Your task to perform on an android device: turn on improve location accuracy Image 0: 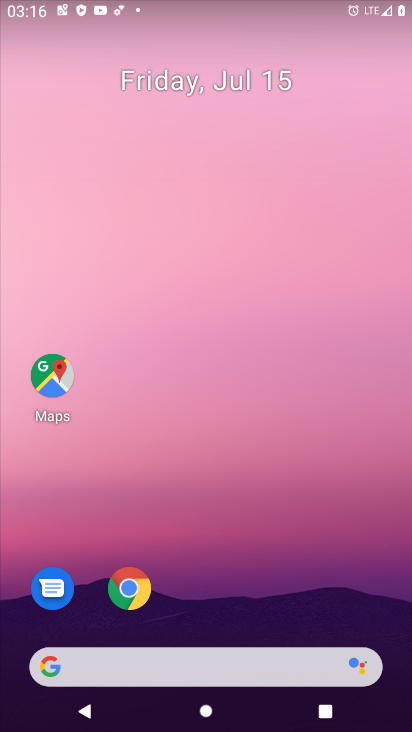
Step 0: drag from (197, 667) to (127, 174)
Your task to perform on an android device: turn on improve location accuracy Image 1: 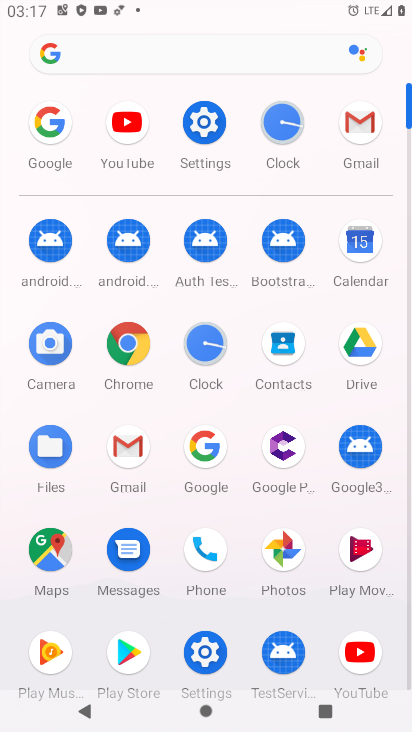
Step 1: click (205, 121)
Your task to perform on an android device: turn on improve location accuracy Image 2: 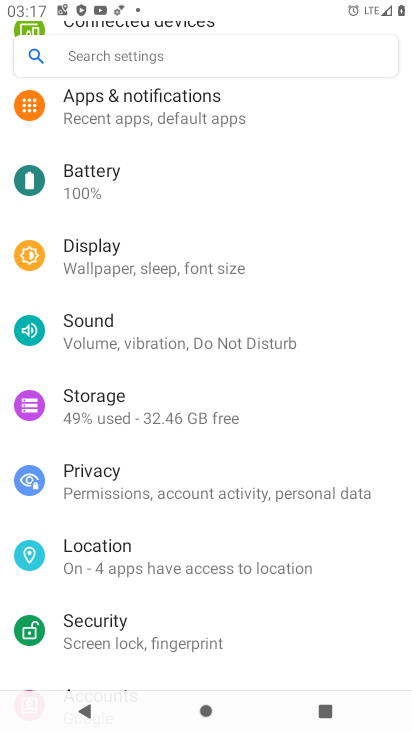
Step 2: click (108, 559)
Your task to perform on an android device: turn on improve location accuracy Image 3: 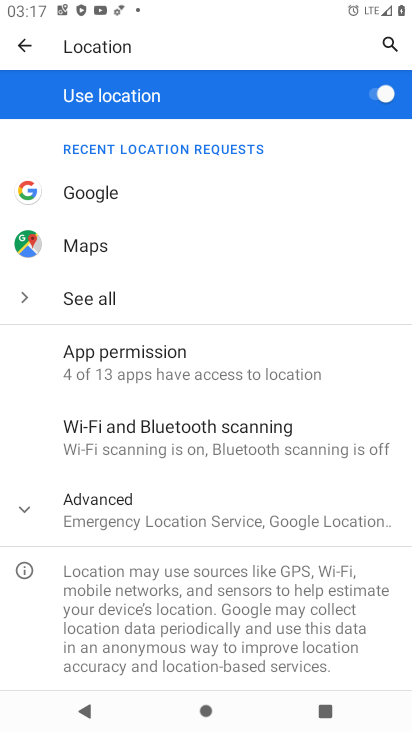
Step 3: click (138, 517)
Your task to perform on an android device: turn on improve location accuracy Image 4: 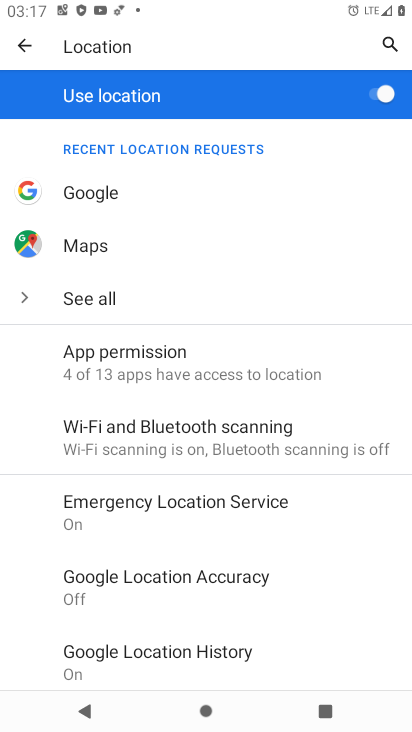
Step 4: click (129, 576)
Your task to perform on an android device: turn on improve location accuracy Image 5: 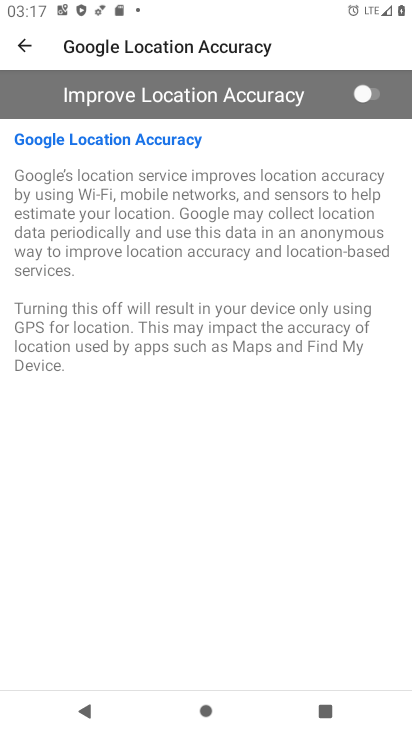
Step 5: click (369, 92)
Your task to perform on an android device: turn on improve location accuracy Image 6: 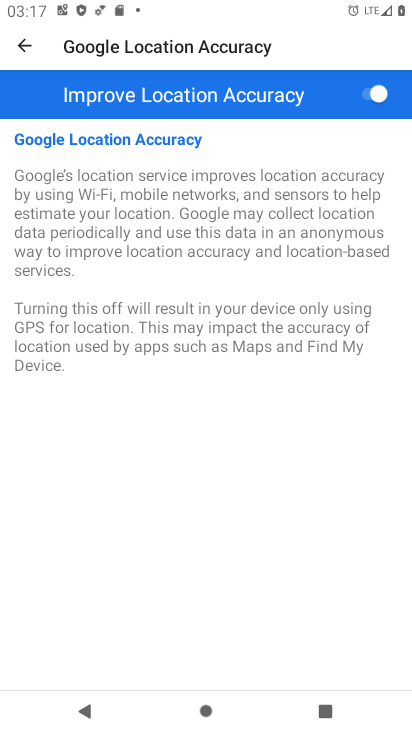
Step 6: task complete